Your task to perform on an android device: Open Chrome and go to settings Image 0: 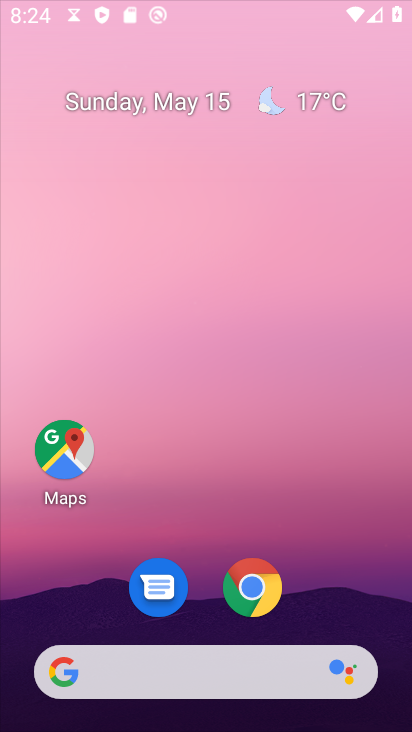
Step 0: drag from (292, 650) to (259, 255)
Your task to perform on an android device: Open Chrome and go to settings Image 1: 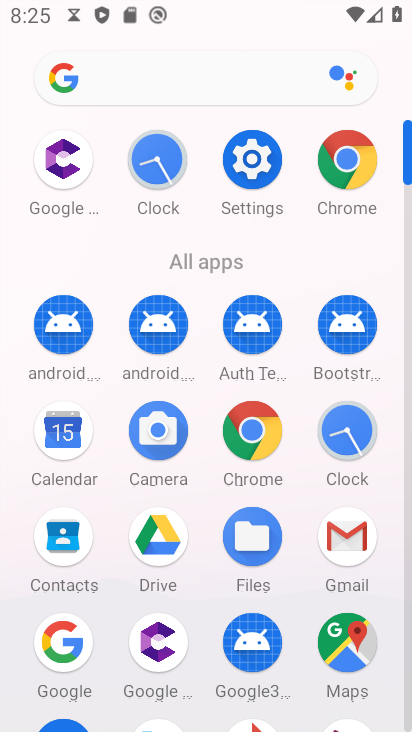
Step 1: click (261, 428)
Your task to perform on an android device: Open Chrome and go to settings Image 2: 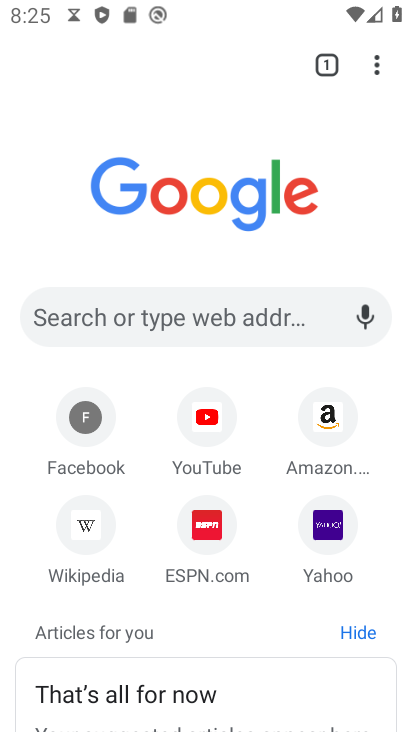
Step 2: click (377, 64)
Your task to perform on an android device: Open Chrome and go to settings Image 3: 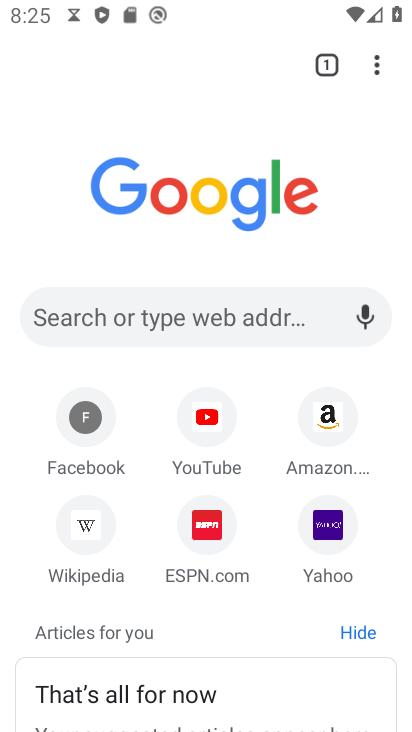
Step 3: click (371, 69)
Your task to perform on an android device: Open Chrome and go to settings Image 4: 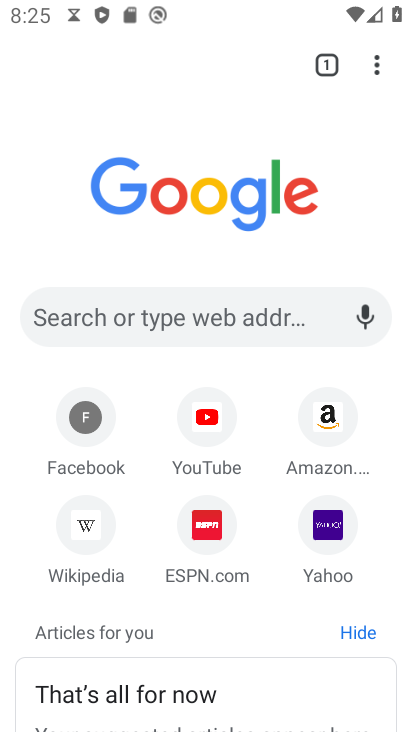
Step 4: drag from (382, 66) to (224, 581)
Your task to perform on an android device: Open Chrome and go to settings Image 5: 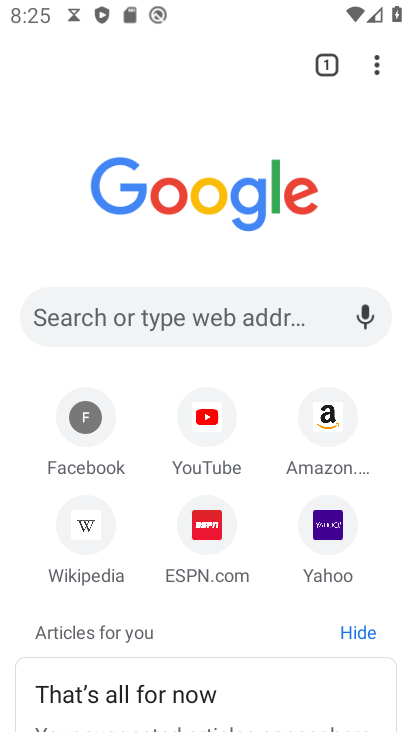
Step 5: click (129, 536)
Your task to perform on an android device: Open Chrome and go to settings Image 6: 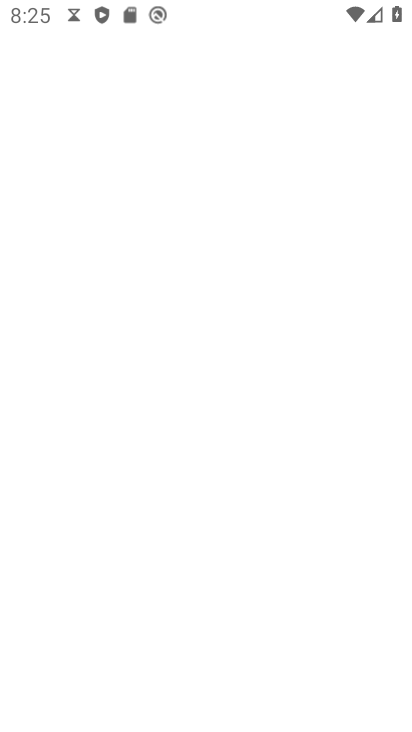
Step 6: click (370, 60)
Your task to perform on an android device: Open Chrome and go to settings Image 7: 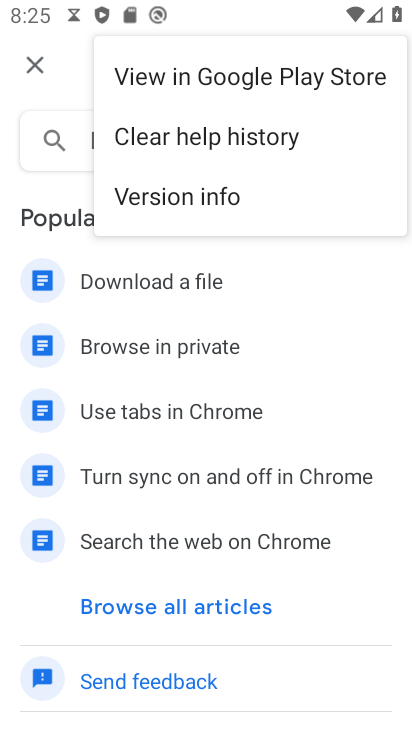
Step 7: click (37, 68)
Your task to perform on an android device: Open Chrome and go to settings Image 8: 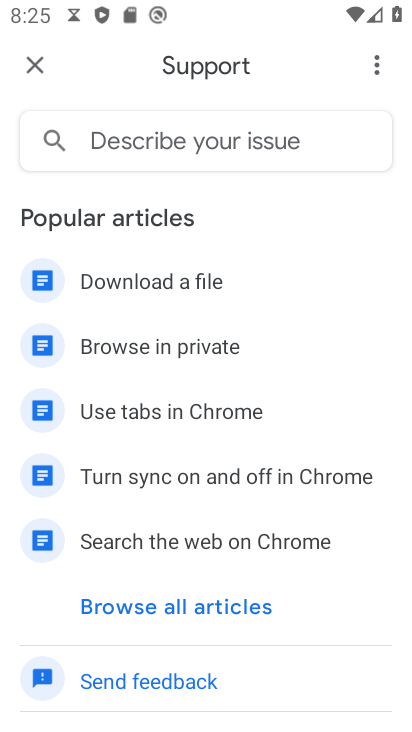
Step 8: click (41, 74)
Your task to perform on an android device: Open Chrome and go to settings Image 9: 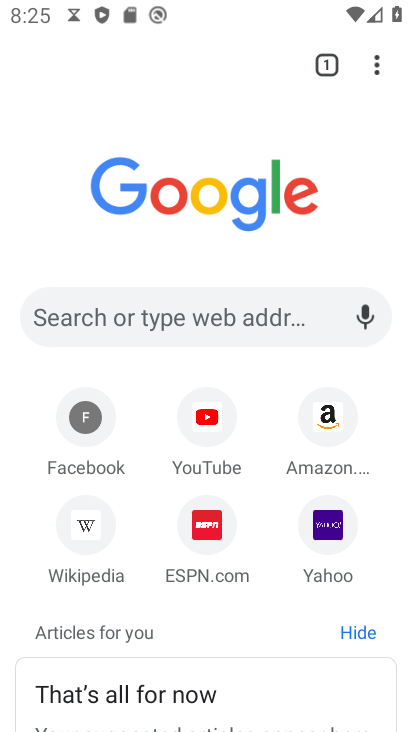
Step 9: click (366, 54)
Your task to perform on an android device: Open Chrome and go to settings Image 10: 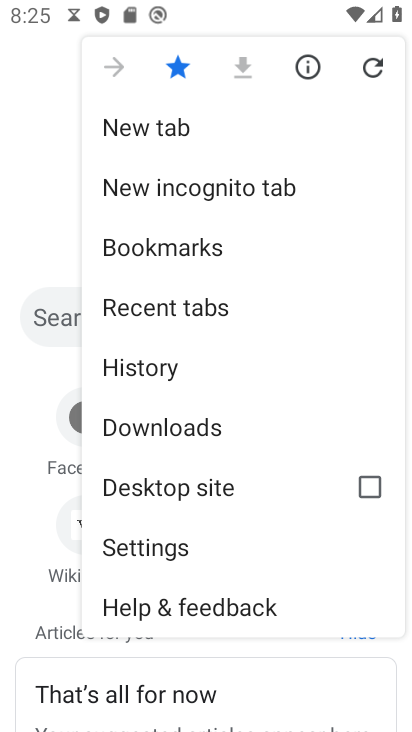
Step 10: click (147, 545)
Your task to perform on an android device: Open Chrome and go to settings Image 11: 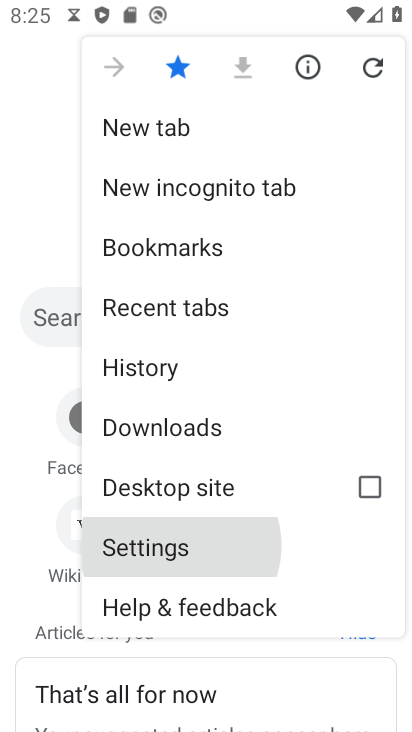
Step 11: click (155, 543)
Your task to perform on an android device: Open Chrome and go to settings Image 12: 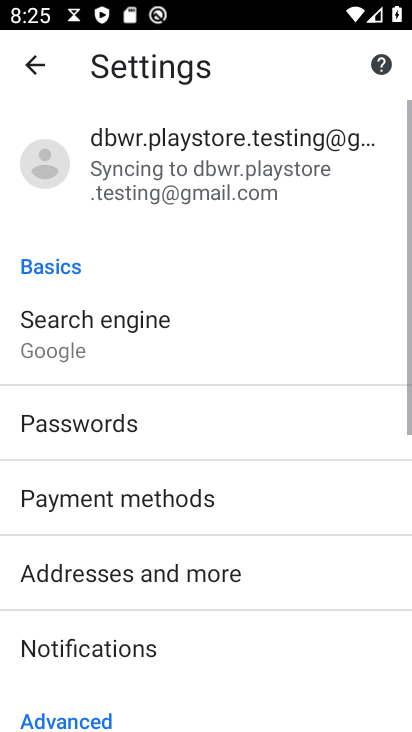
Step 12: task complete